Your task to perform on an android device: Open internet settings Image 0: 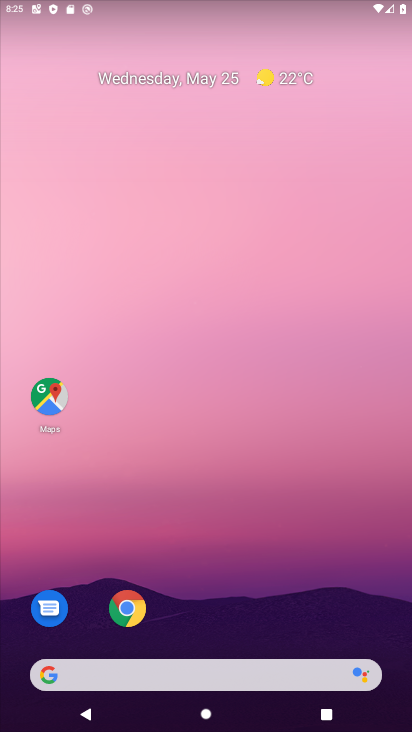
Step 0: drag from (251, 610) to (226, 100)
Your task to perform on an android device: Open internet settings Image 1: 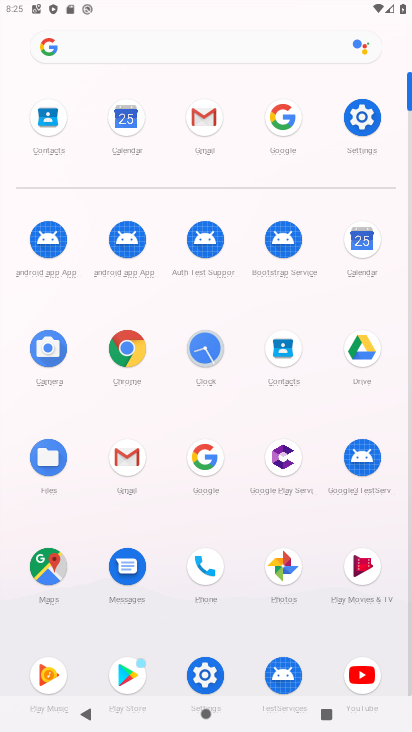
Step 1: click (362, 119)
Your task to perform on an android device: Open internet settings Image 2: 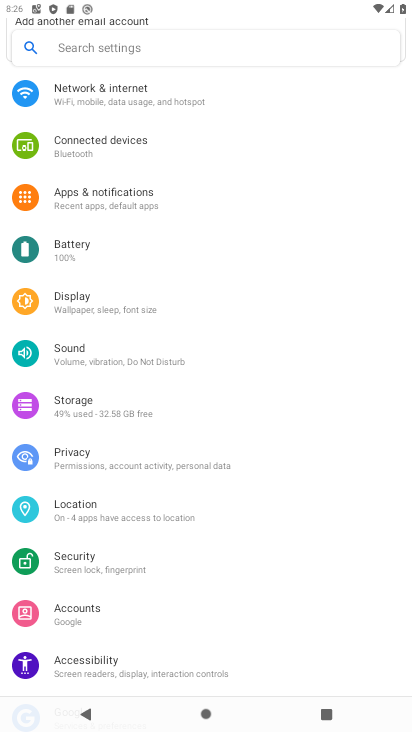
Step 2: click (107, 89)
Your task to perform on an android device: Open internet settings Image 3: 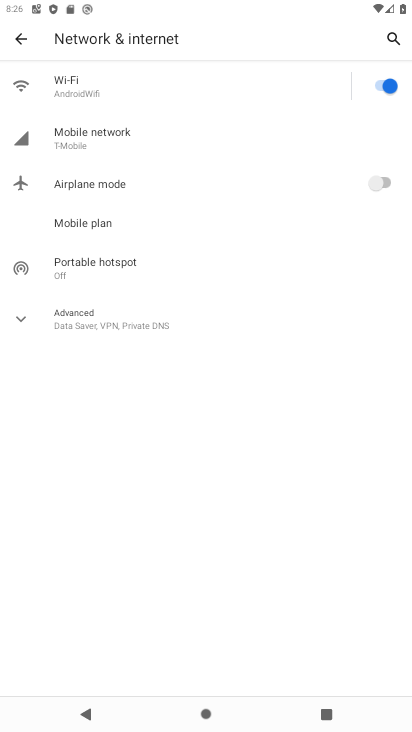
Step 3: click (71, 89)
Your task to perform on an android device: Open internet settings Image 4: 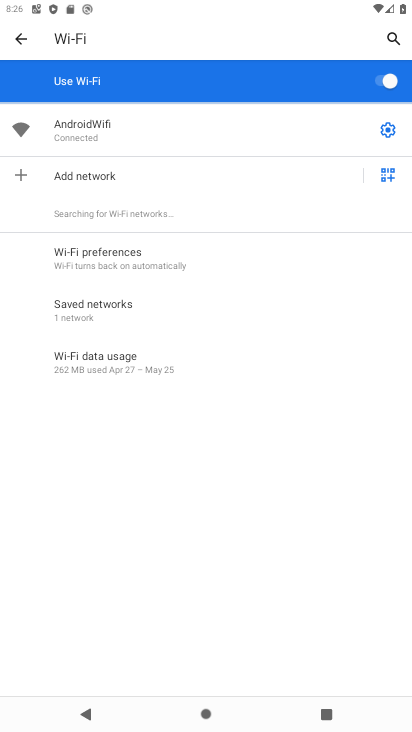
Step 4: task complete